Your task to perform on an android device: What's the weather today? Image 0: 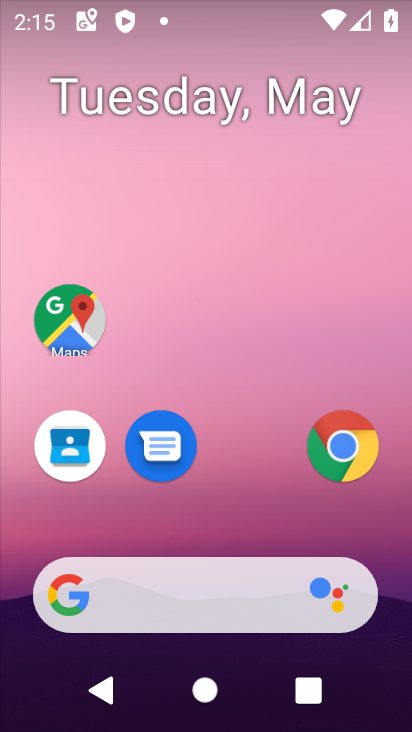
Step 0: click (230, 618)
Your task to perform on an android device: What's the weather today? Image 1: 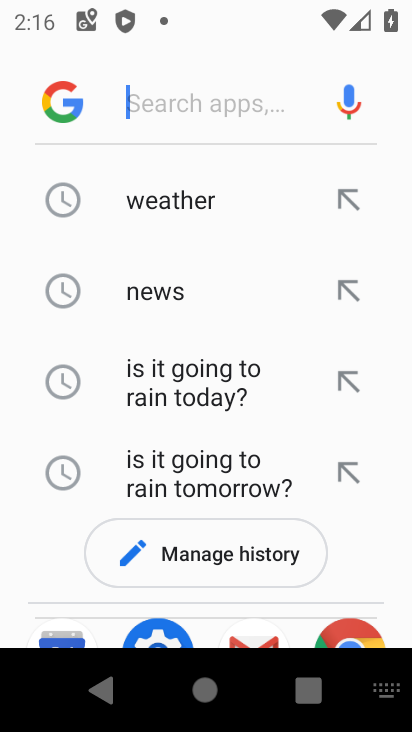
Step 1: click (145, 205)
Your task to perform on an android device: What's the weather today? Image 2: 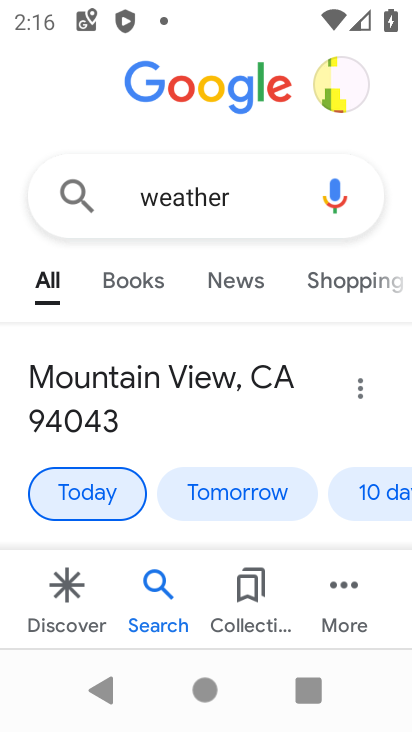
Step 2: click (2, 491)
Your task to perform on an android device: What's the weather today? Image 3: 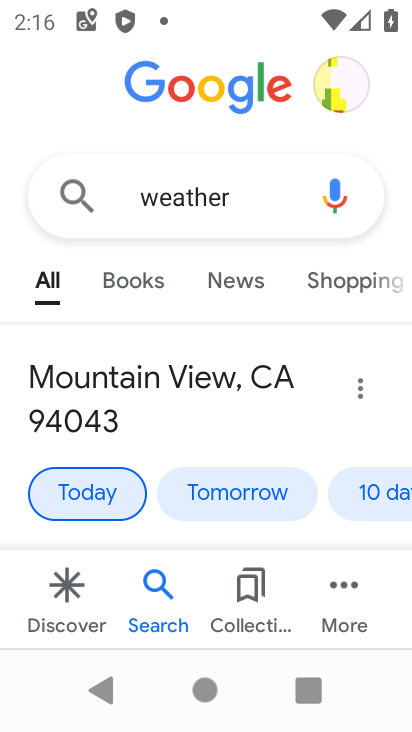
Step 3: click (52, 471)
Your task to perform on an android device: What's the weather today? Image 4: 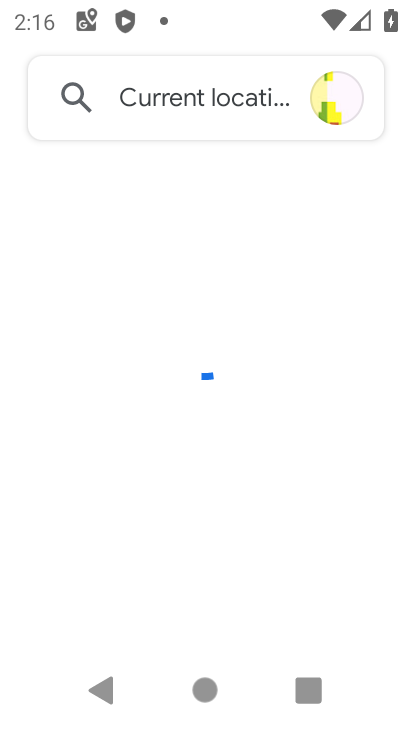
Step 4: task complete